Your task to perform on an android device: allow notifications from all sites in the chrome app Image 0: 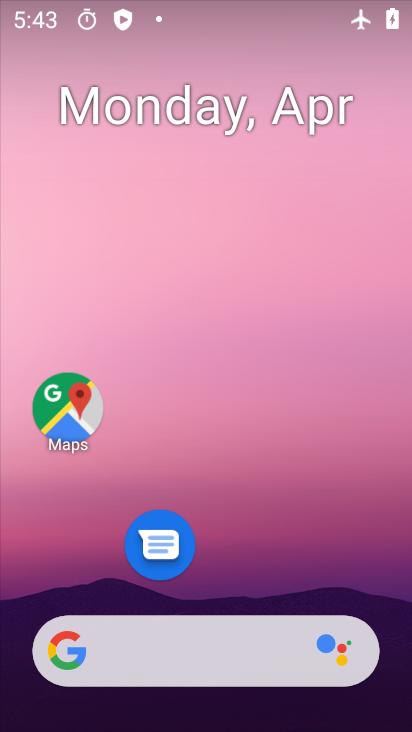
Step 0: drag from (269, 583) to (303, 99)
Your task to perform on an android device: allow notifications from all sites in the chrome app Image 1: 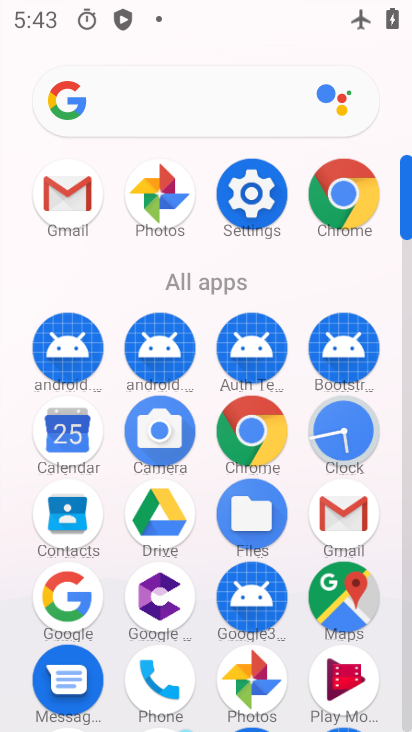
Step 1: click (251, 428)
Your task to perform on an android device: allow notifications from all sites in the chrome app Image 2: 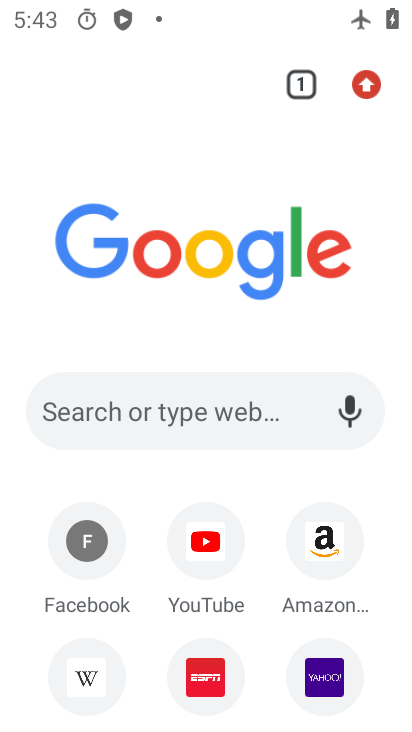
Step 2: click (370, 82)
Your task to perform on an android device: allow notifications from all sites in the chrome app Image 3: 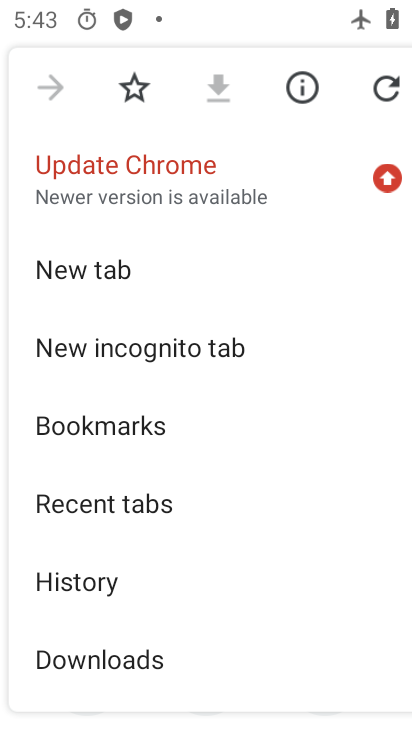
Step 3: drag from (227, 4) to (225, 502)
Your task to perform on an android device: allow notifications from all sites in the chrome app Image 4: 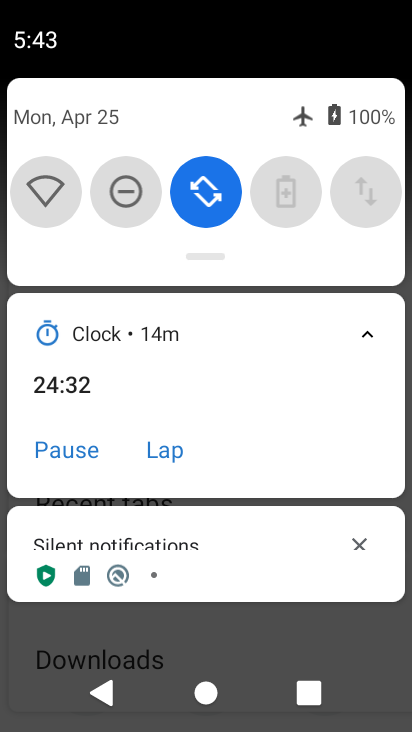
Step 4: drag from (307, 239) to (307, 556)
Your task to perform on an android device: allow notifications from all sites in the chrome app Image 5: 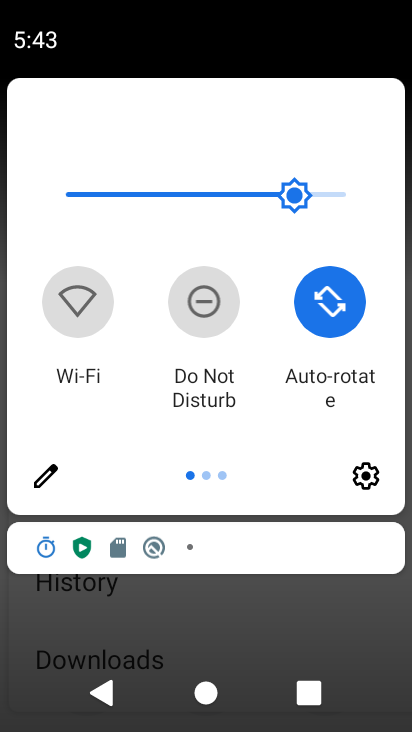
Step 5: drag from (363, 229) to (48, 223)
Your task to perform on an android device: allow notifications from all sites in the chrome app Image 6: 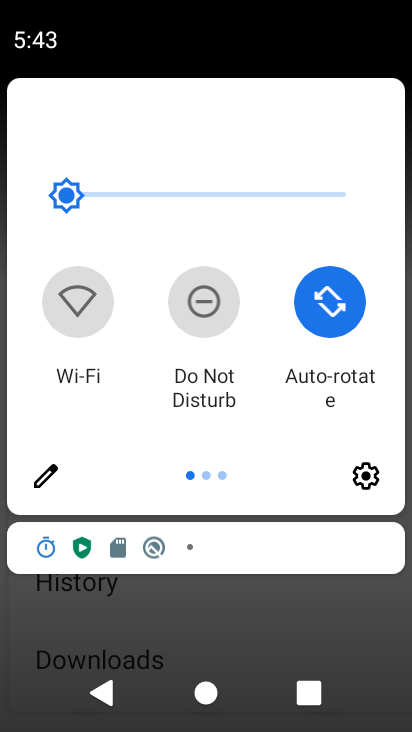
Step 6: drag from (49, 188) to (282, 193)
Your task to perform on an android device: allow notifications from all sites in the chrome app Image 7: 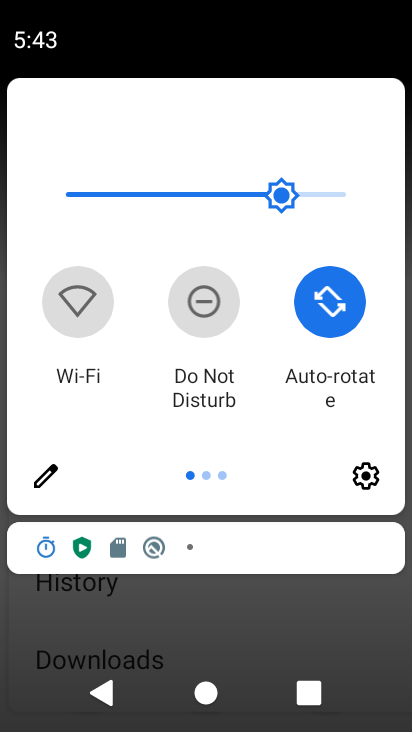
Step 7: drag from (348, 223) to (49, 240)
Your task to perform on an android device: allow notifications from all sites in the chrome app Image 8: 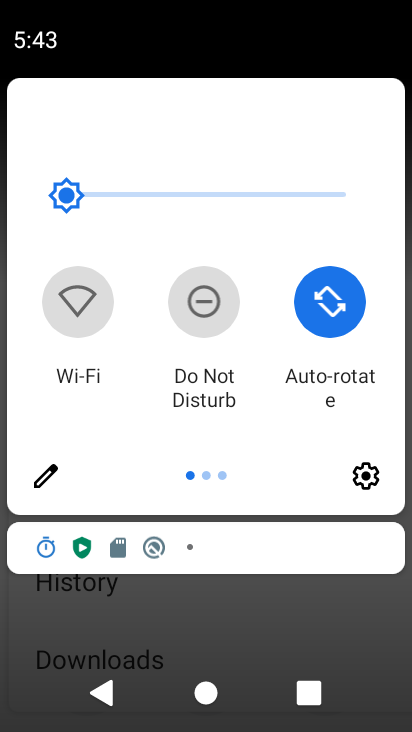
Step 8: click (300, 188)
Your task to perform on an android device: allow notifications from all sites in the chrome app Image 9: 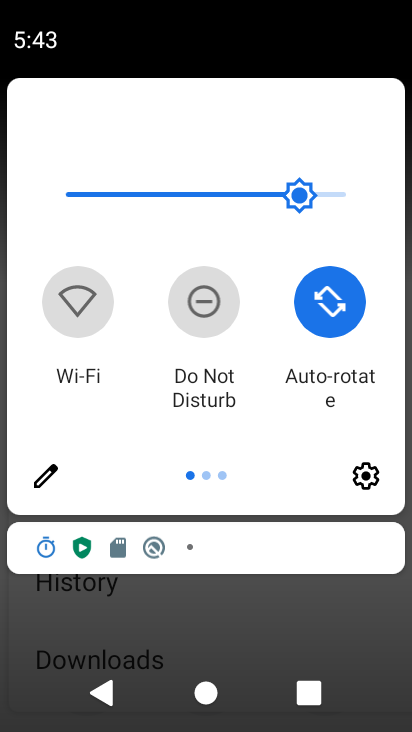
Step 9: drag from (366, 286) to (6, 246)
Your task to perform on an android device: allow notifications from all sites in the chrome app Image 10: 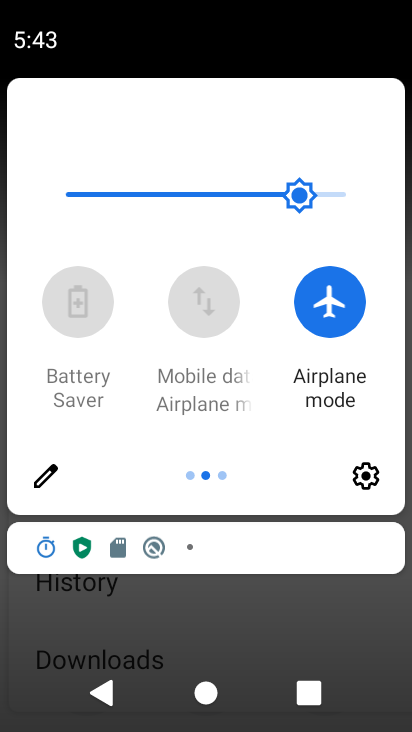
Step 10: click (338, 303)
Your task to perform on an android device: allow notifications from all sites in the chrome app Image 11: 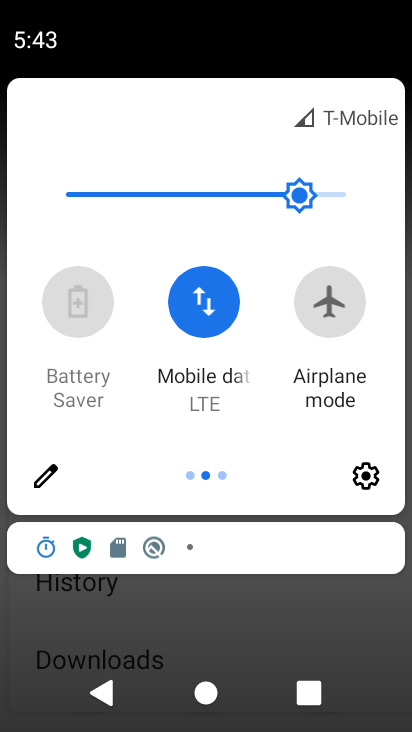
Step 11: drag from (325, 622) to (350, 137)
Your task to perform on an android device: allow notifications from all sites in the chrome app Image 12: 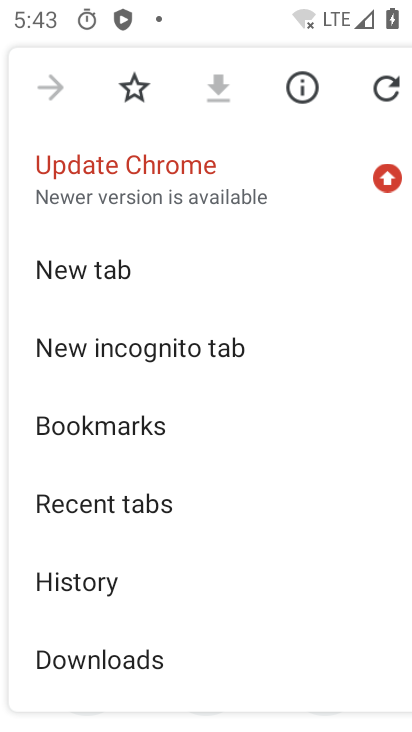
Step 12: drag from (259, 564) to (280, 259)
Your task to perform on an android device: allow notifications from all sites in the chrome app Image 13: 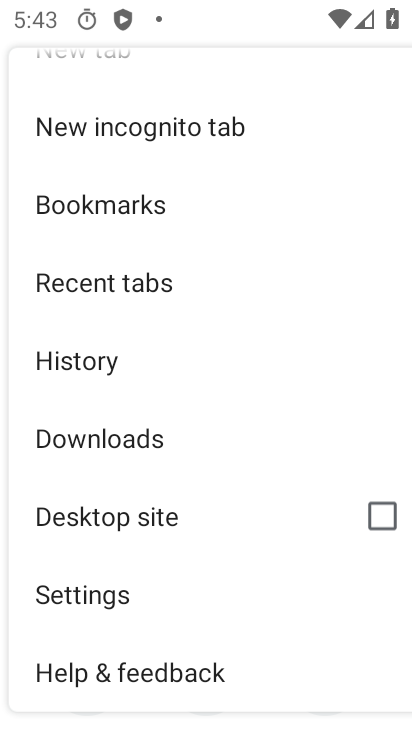
Step 13: click (89, 594)
Your task to perform on an android device: allow notifications from all sites in the chrome app Image 14: 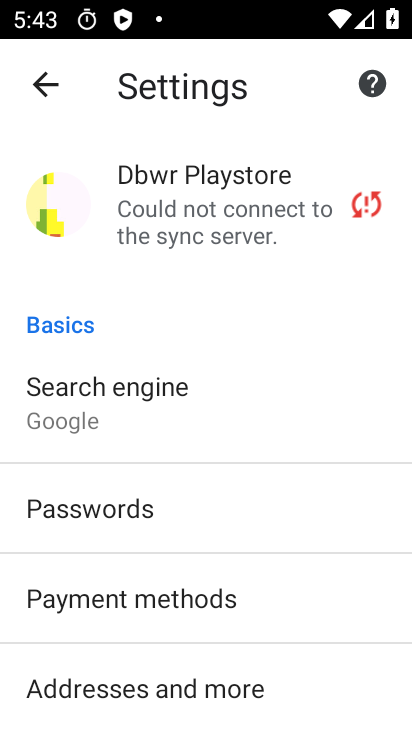
Step 14: drag from (305, 581) to (313, 263)
Your task to perform on an android device: allow notifications from all sites in the chrome app Image 15: 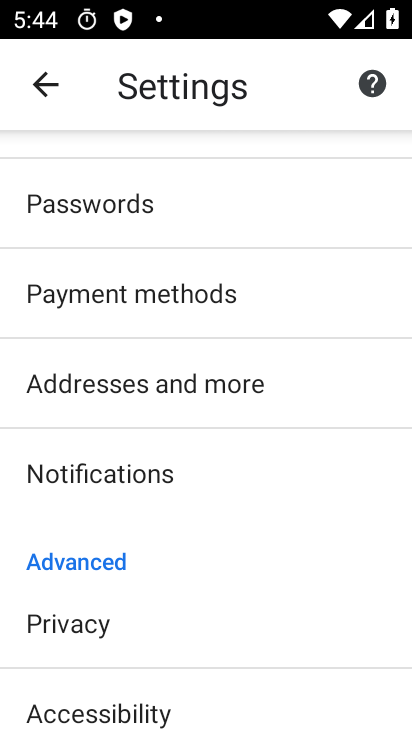
Step 15: drag from (221, 639) to (266, 267)
Your task to perform on an android device: allow notifications from all sites in the chrome app Image 16: 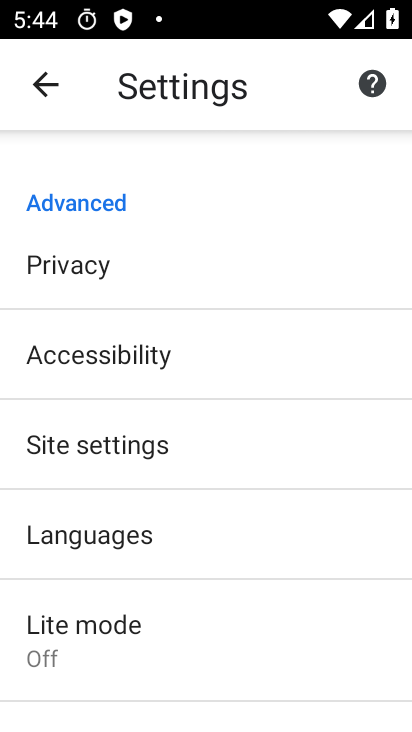
Step 16: click (98, 450)
Your task to perform on an android device: allow notifications from all sites in the chrome app Image 17: 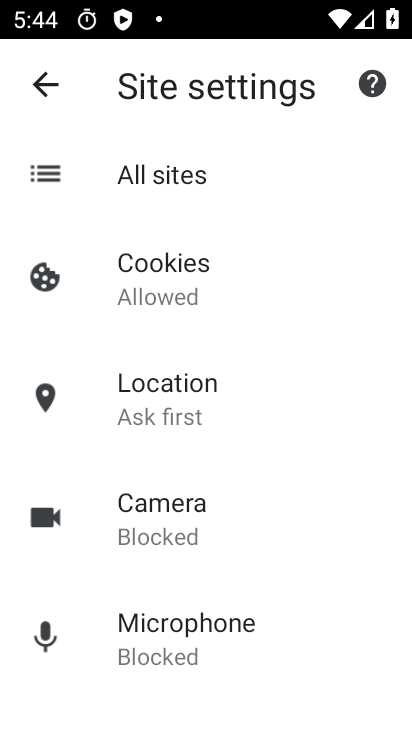
Step 17: click (162, 181)
Your task to perform on an android device: allow notifications from all sites in the chrome app Image 18: 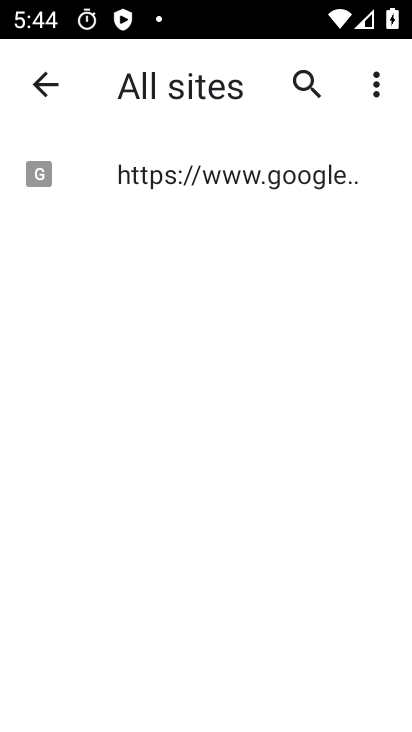
Step 18: click (376, 88)
Your task to perform on an android device: allow notifications from all sites in the chrome app Image 19: 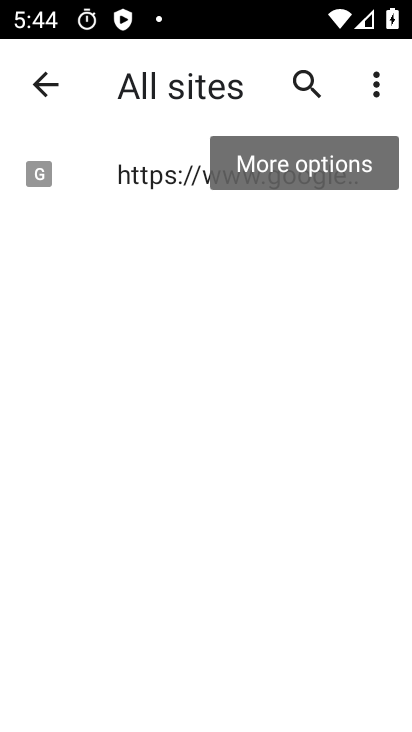
Step 19: click (376, 88)
Your task to perform on an android device: allow notifications from all sites in the chrome app Image 20: 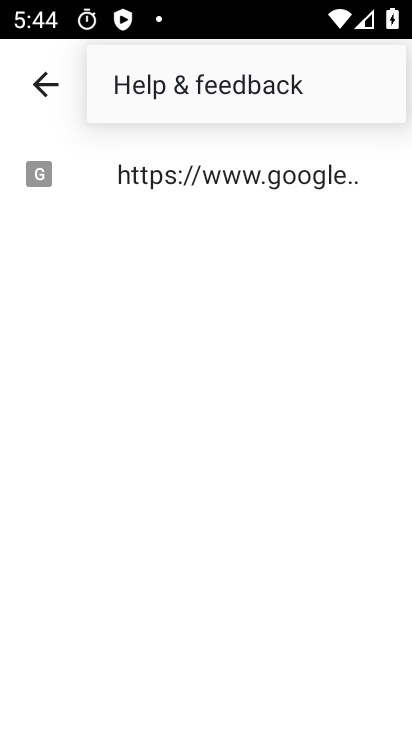
Step 20: click (226, 176)
Your task to perform on an android device: allow notifications from all sites in the chrome app Image 21: 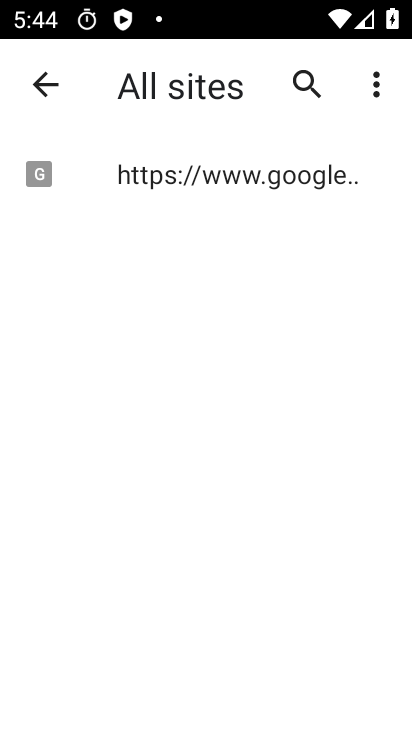
Step 21: click (226, 176)
Your task to perform on an android device: allow notifications from all sites in the chrome app Image 22: 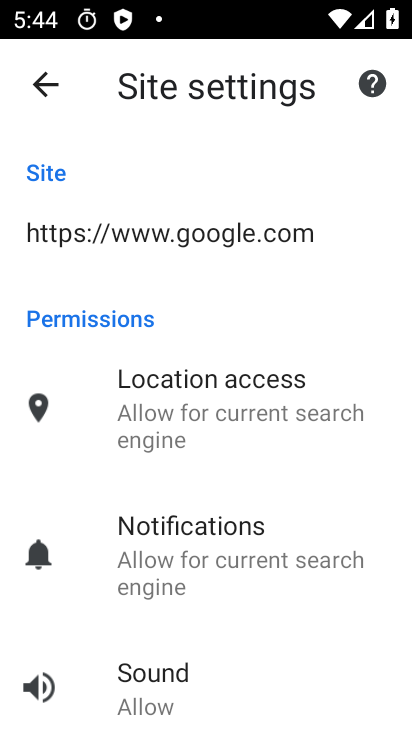
Step 22: click (164, 542)
Your task to perform on an android device: allow notifications from all sites in the chrome app Image 23: 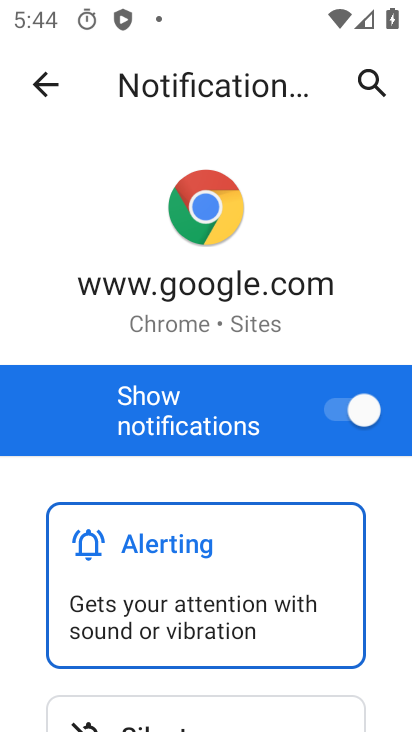
Step 23: task complete